Your task to perform on an android device: See recent photos Image 0: 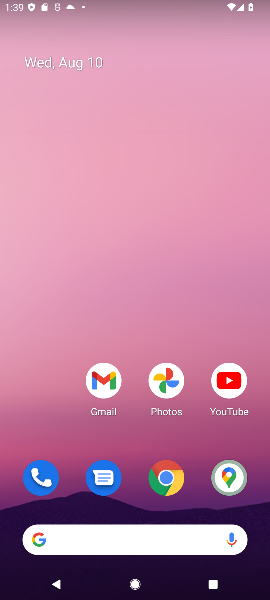
Step 0: drag from (44, 413) to (96, 69)
Your task to perform on an android device: See recent photos Image 1: 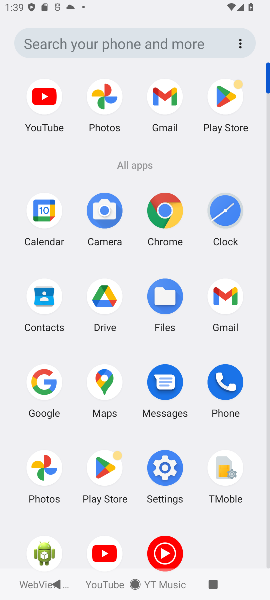
Step 1: click (38, 475)
Your task to perform on an android device: See recent photos Image 2: 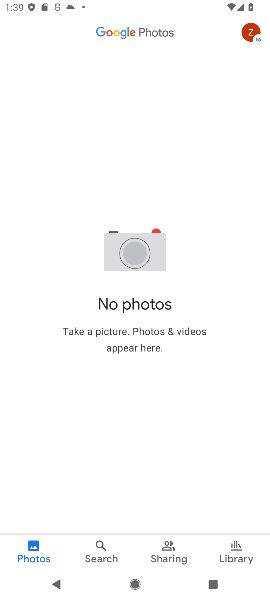
Step 2: task complete